Your task to perform on an android device: Search for Italian restaurants on Maps Image 0: 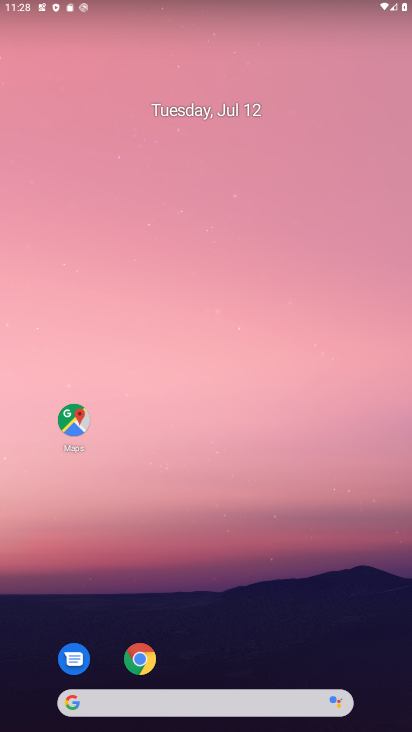
Step 0: drag from (122, 713) to (194, 93)
Your task to perform on an android device: Search for Italian restaurants on Maps Image 1: 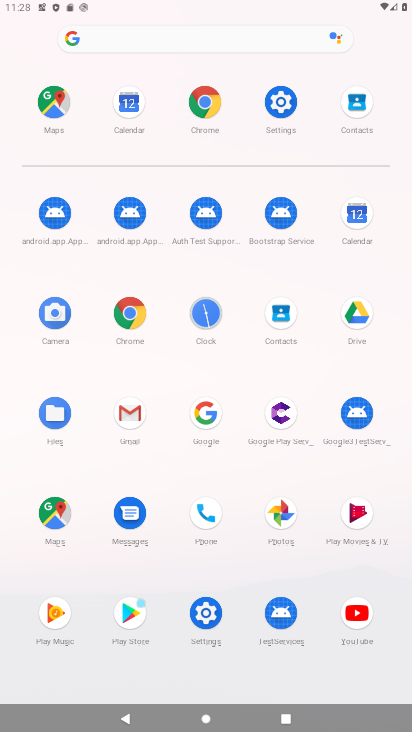
Step 1: click (55, 506)
Your task to perform on an android device: Search for Italian restaurants on Maps Image 2: 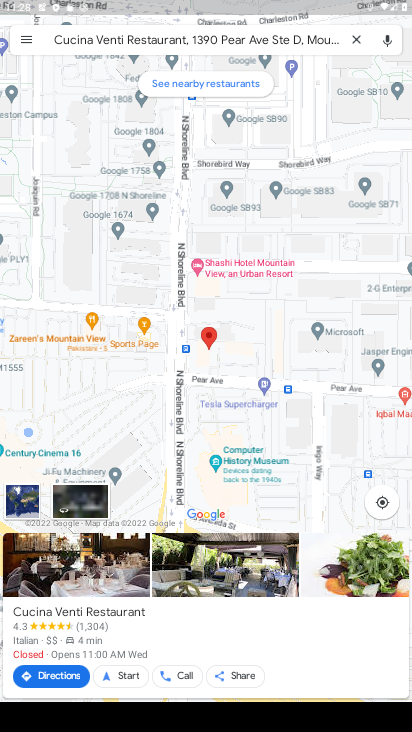
Step 2: click (120, 35)
Your task to perform on an android device: Search for Italian restaurants on Maps Image 3: 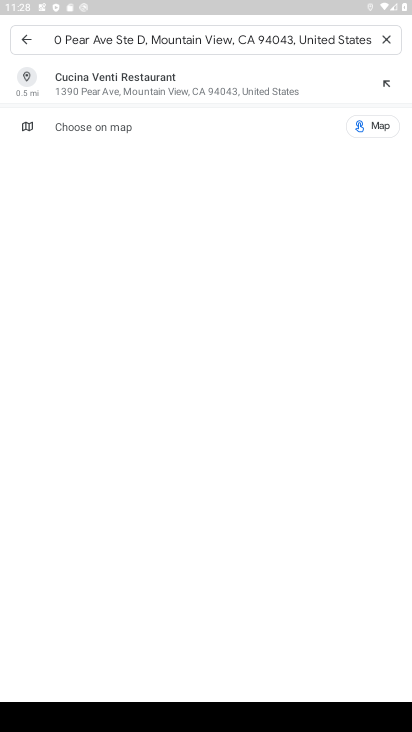
Step 3: click (378, 36)
Your task to perform on an android device: Search for Italian restaurants on Maps Image 4: 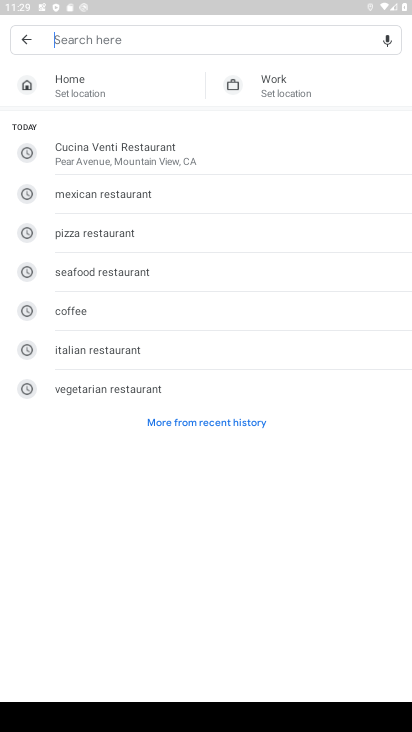
Step 4: click (110, 356)
Your task to perform on an android device: Search for Italian restaurants on Maps Image 5: 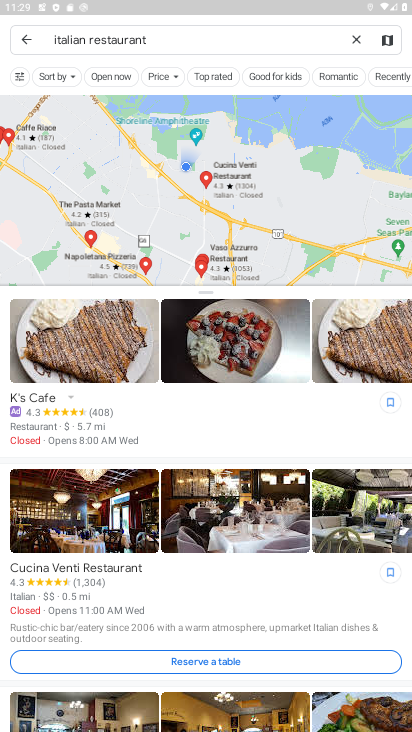
Step 5: task complete